Your task to perform on an android device: Open settings on Google Maps Image 0: 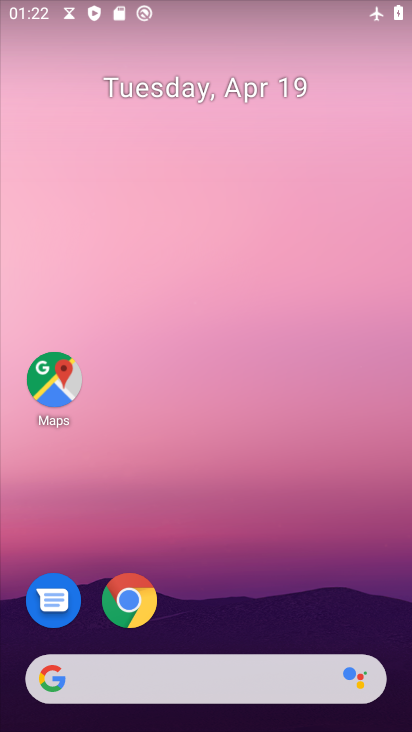
Step 0: drag from (207, 646) to (189, 4)
Your task to perform on an android device: Open settings on Google Maps Image 1: 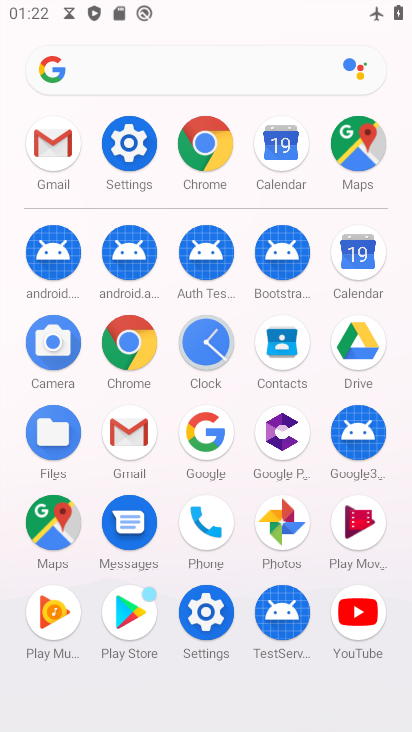
Step 1: click (66, 517)
Your task to perform on an android device: Open settings on Google Maps Image 2: 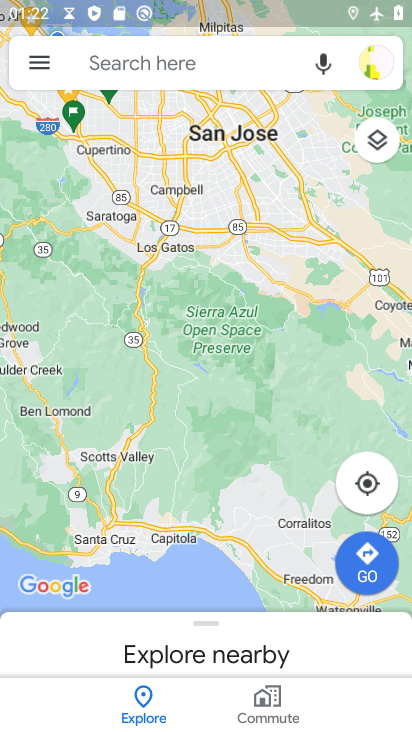
Step 2: click (36, 71)
Your task to perform on an android device: Open settings on Google Maps Image 3: 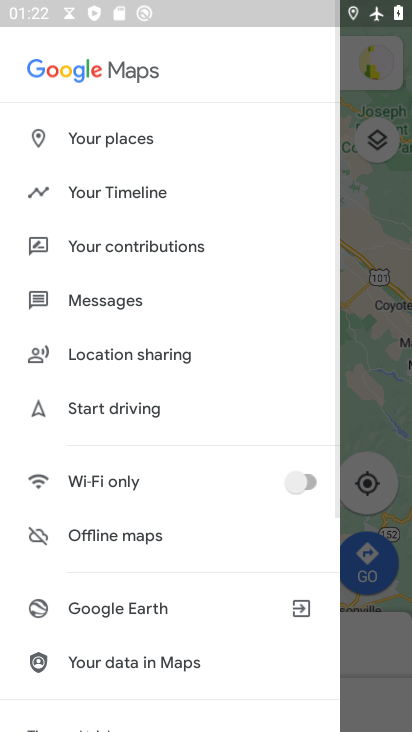
Step 3: drag from (144, 574) to (99, 93)
Your task to perform on an android device: Open settings on Google Maps Image 4: 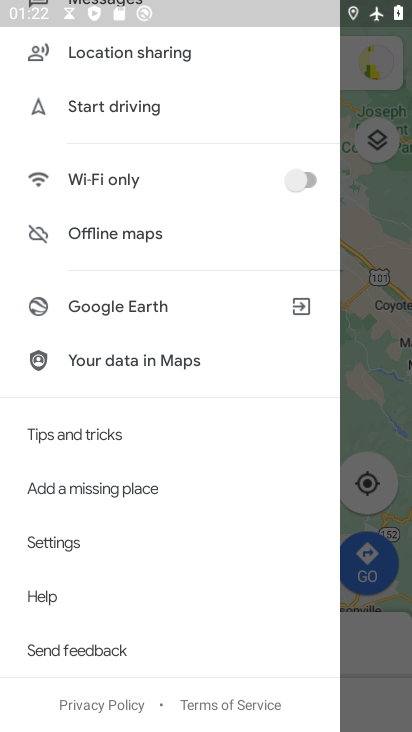
Step 4: click (71, 541)
Your task to perform on an android device: Open settings on Google Maps Image 5: 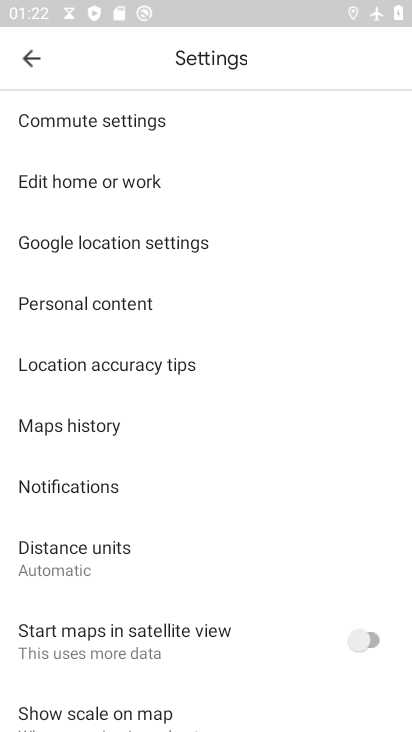
Step 5: task complete